Your task to perform on an android device: toggle notifications settings in the gmail app Image 0: 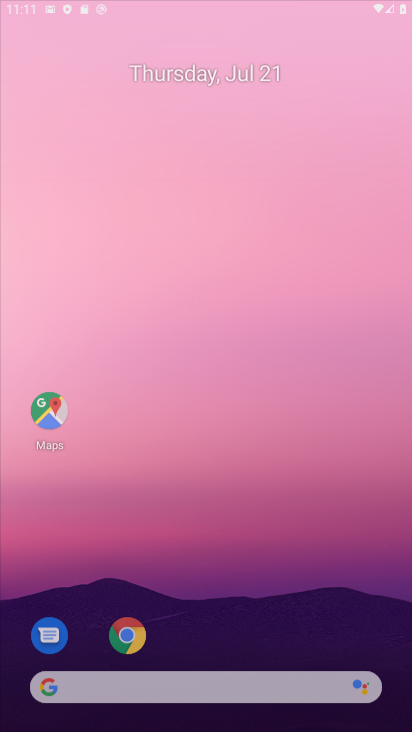
Step 0: click (406, 211)
Your task to perform on an android device: toggle notifications settings in the gmail app Image 1: 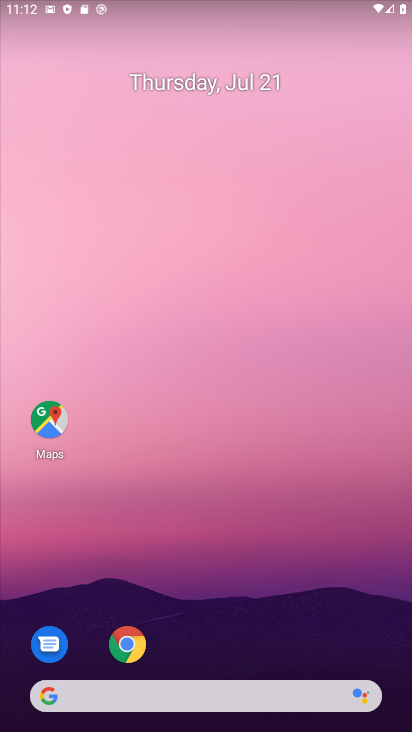
Step 1: drag from (202, 563) to (96, 0)
Your task to perform on an android device: toggle notifications settings in the gmail app Image 2: 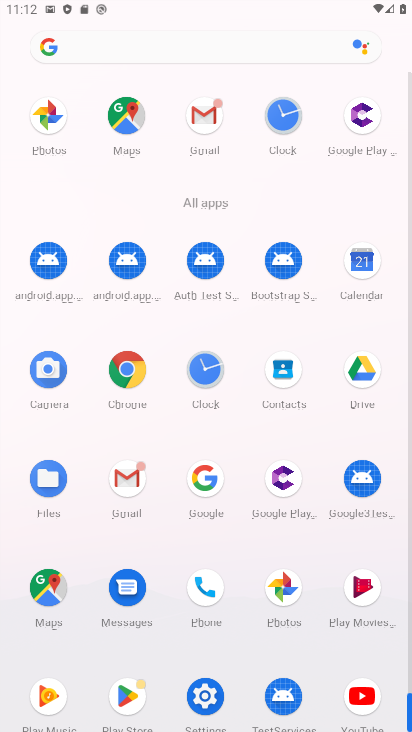
Step 2: click (134, 492)
Your task to perform on an android device: toggle notifications settings in the gmail app Image 3: 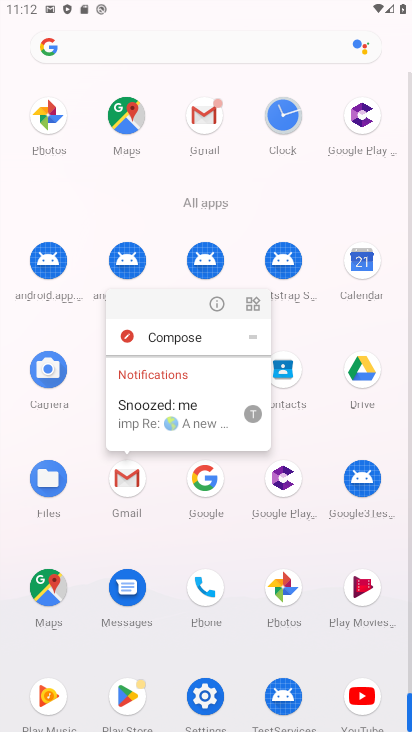
Step 3: click (214, 308)
Your task to perform on an android device: toggle notifications settings in the gmail app Image 4: 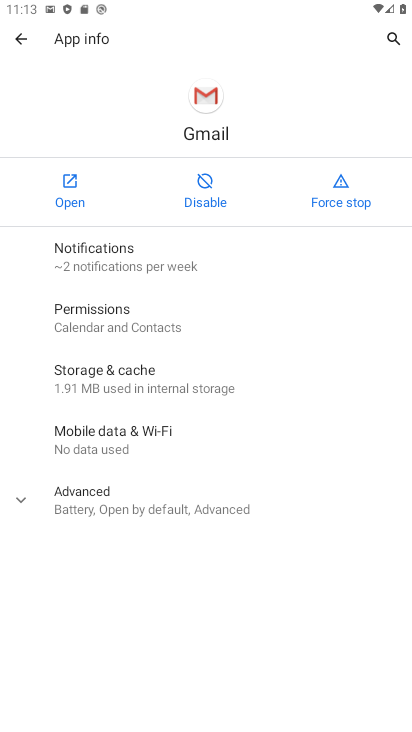
Step 4: click (65, 193)
Your task to perform on an android device: toggle notifications settings in the gmail app Image 5: 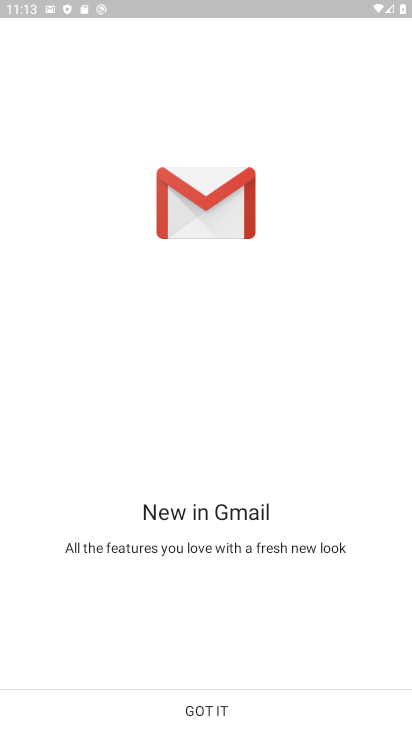
Step 5: click (174, 711)
Your task to perform on an android device: toggle notifications settings in the gmail app Image 6: 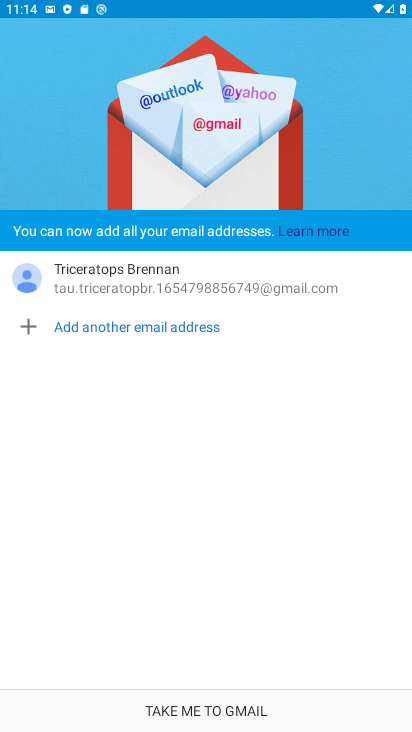
Step 6: click (201, 703)
Your task to perform on an android device: toggle notifications settings in the gmail app Image 7: 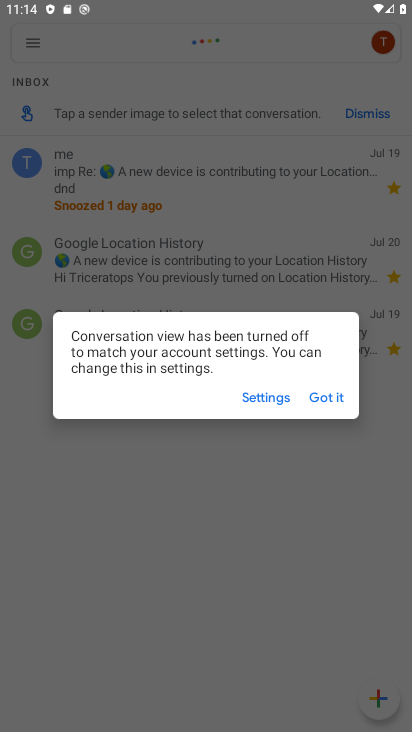
Step 7: click (324, 404)
Your task to perform on an android device: toggle notifications settings in the gmail app Image 8: 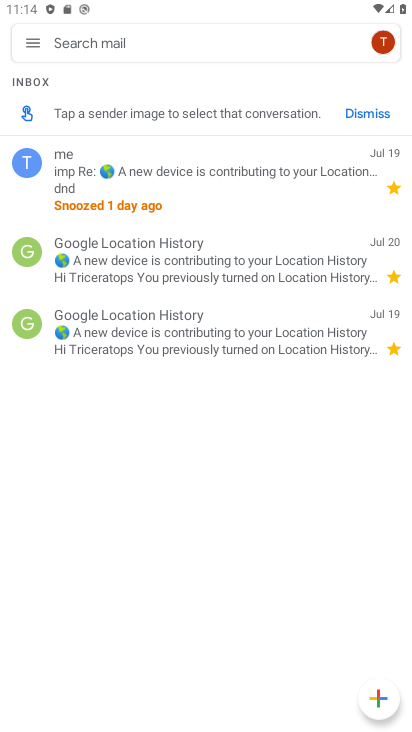
Step 8: click (19, 45)
Your task to perform on an android device: toggle notifications settings in the gmail app Image 9: 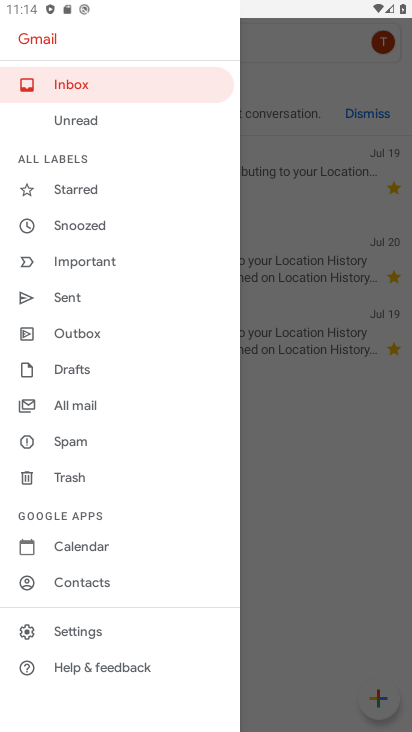
Step 9: drag from (88, 534) to (140, 107)
Your task to perform on an android device: toggle notifications settings in the gmail app Image 10: 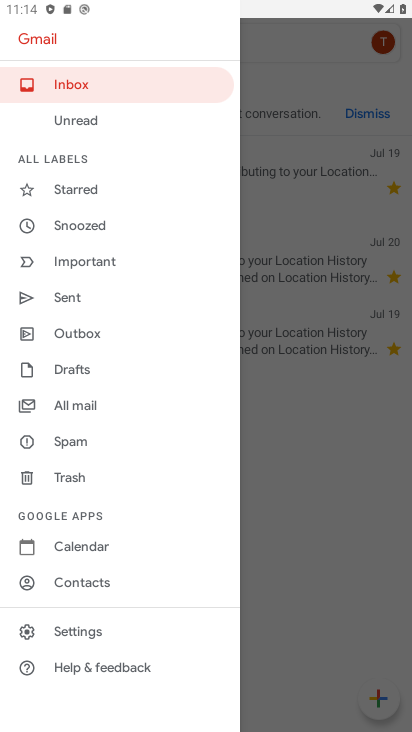
Step 10: click (76, 624)
Your task to perform on an android device: toggle notifications settings in the gmail app Image 11: 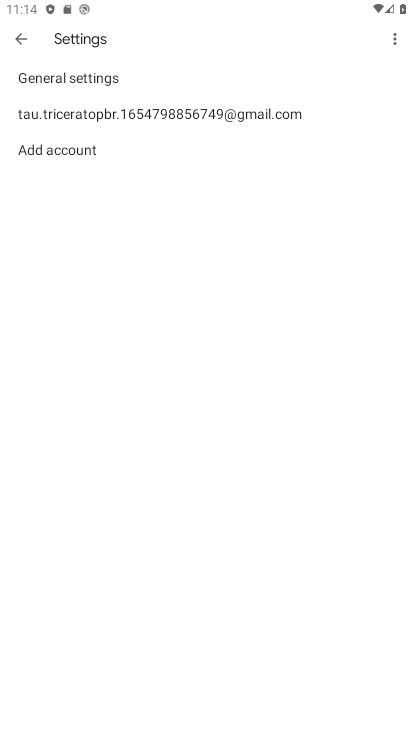
Step 11: click (122, 107)
Your task to perform on an android device: toggle notifications settings in the gmail app Image 12: 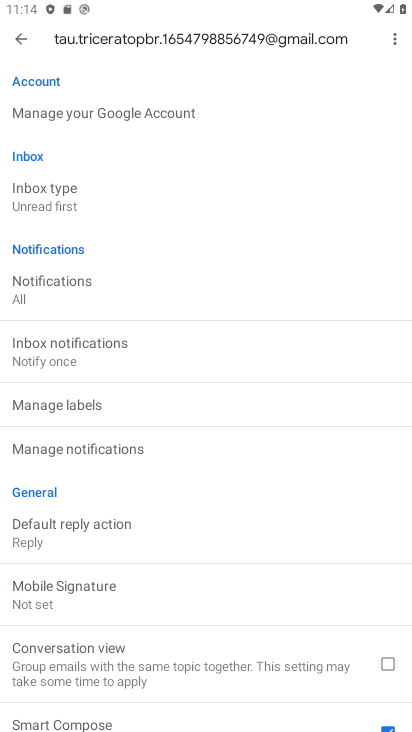
Step 12: click (85, 445)
Your task to perform on an android device: toggle notifications settings in the gmail app Image 13: 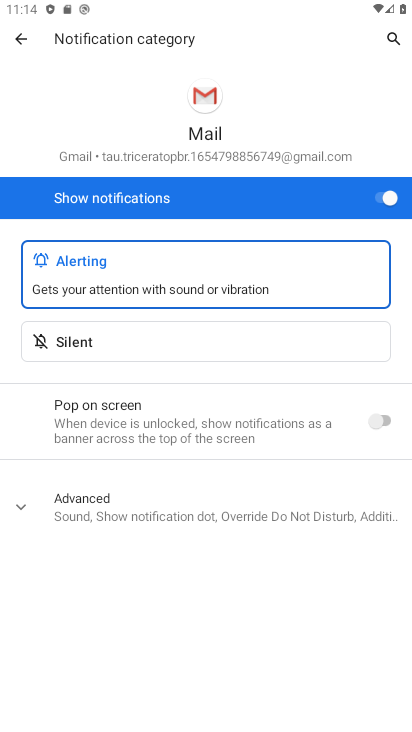
Step 13: click (378, 201)
Your task to perform on an android device: toggle notifications settings in the gmail app Image 14: 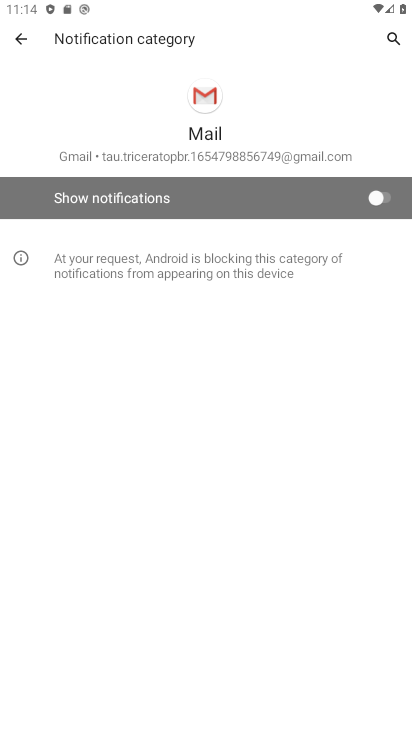
Step 14: task complete